Your task to perform on an android device: turn pop-ups on in chrome Image 0: 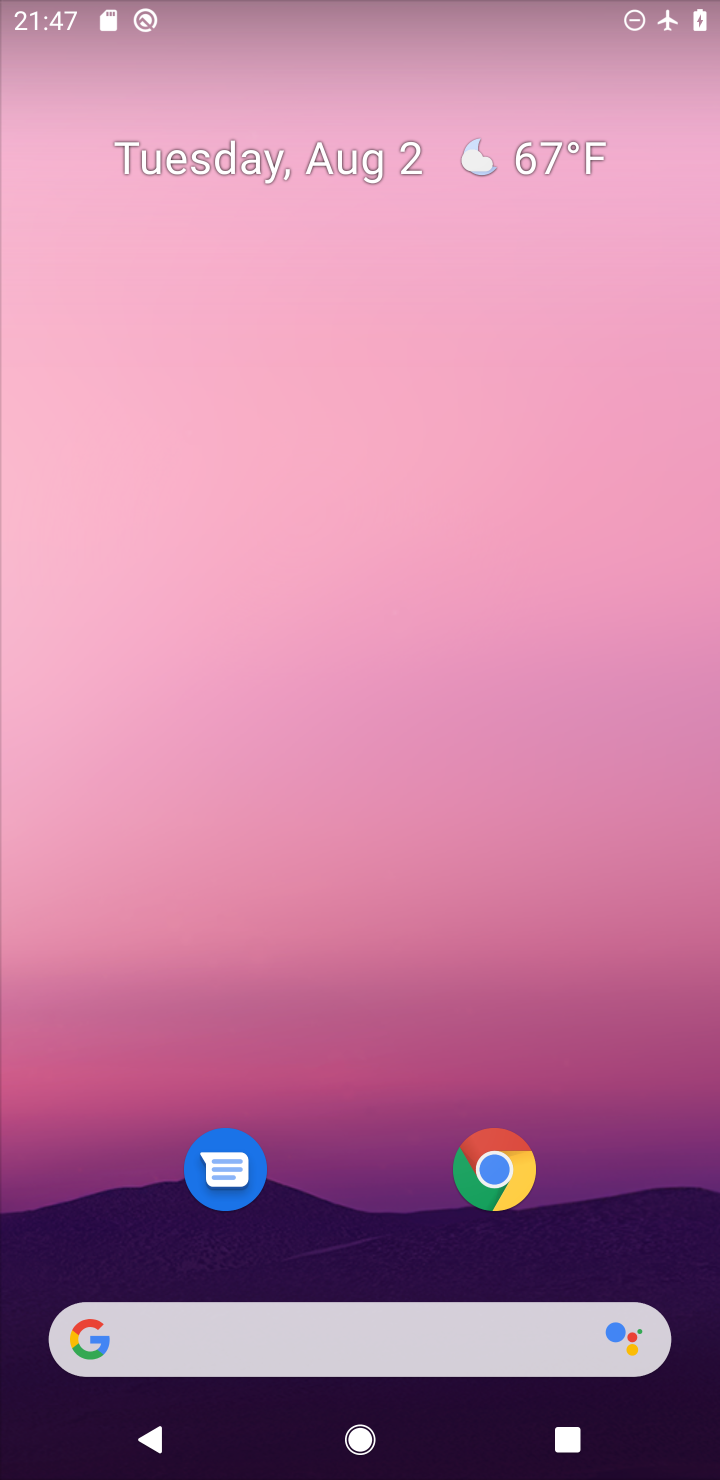
Step 0: click (509, 1170)
Your task to perform on an android device: turn pop-ups on in chrome Image 1: 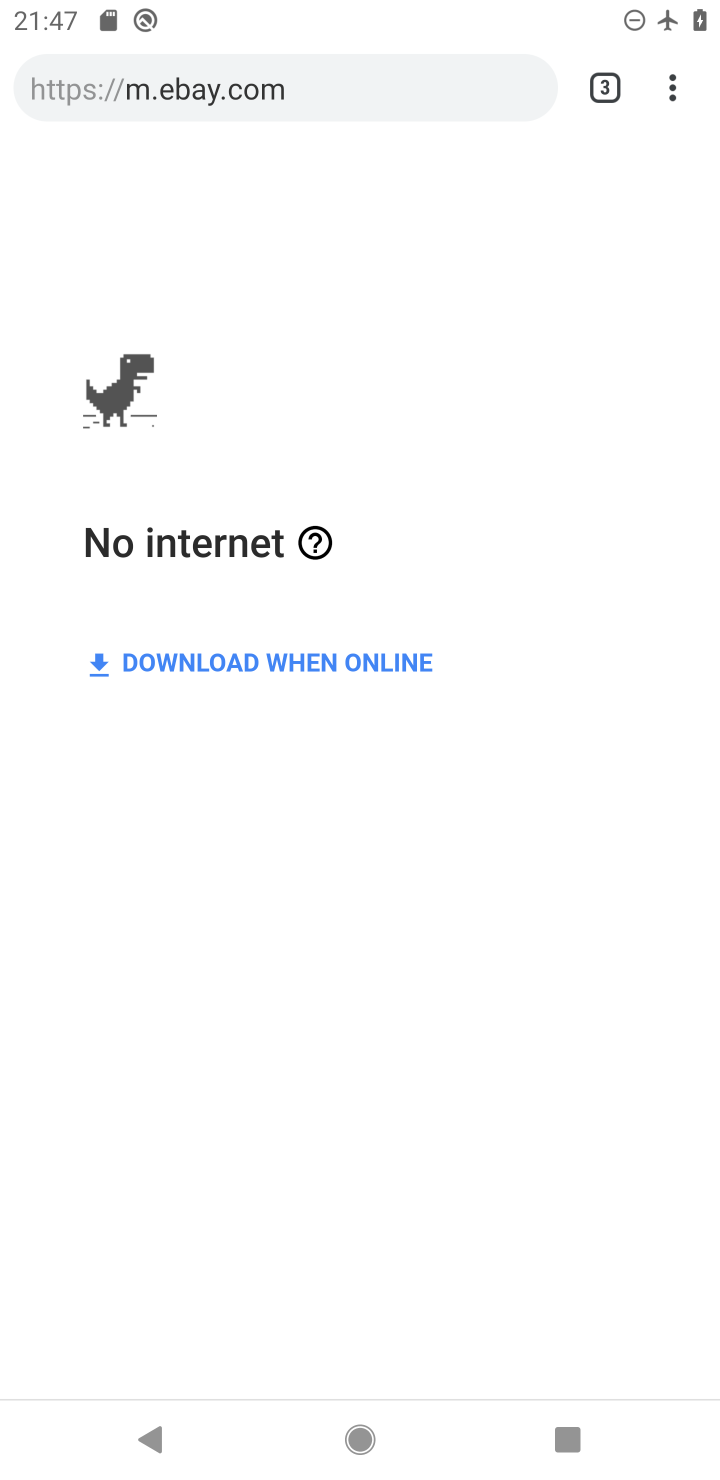
Step 1: click (673, 102)
Your task to perform on an android device: turn pop-ups on in chrome Image 2: 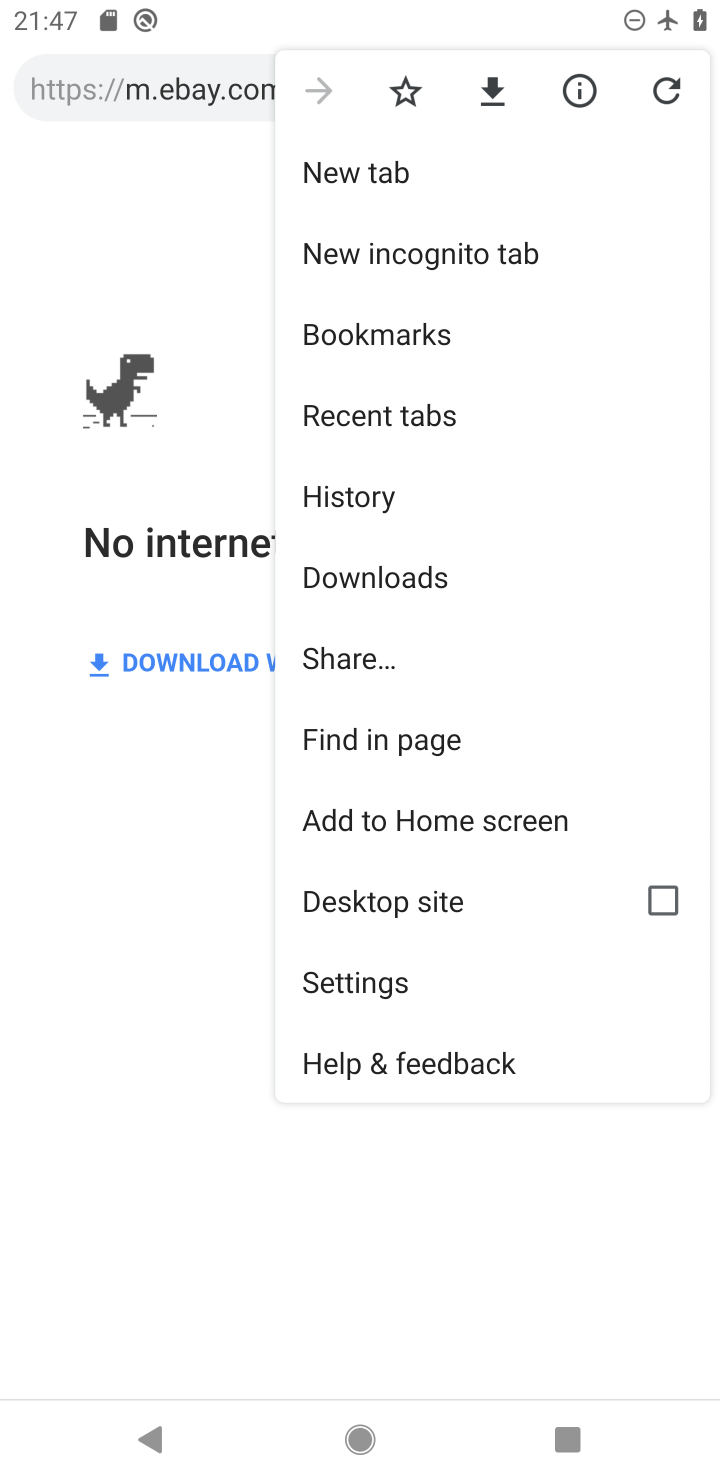
Step 2: click (359, 979)
Your task to perform on an android device: turn pop-ups on in chrome Image 3: 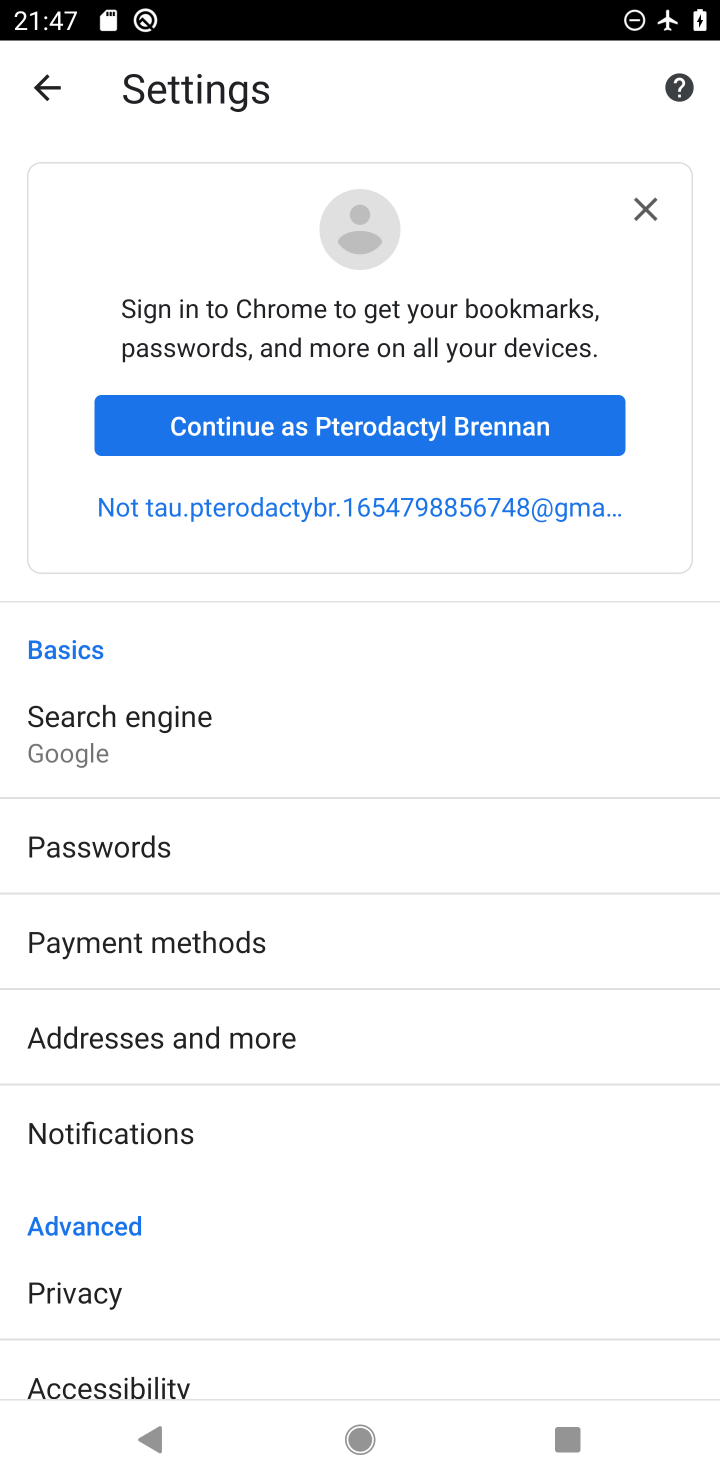
Step 3: drag from (208, 1341) to (263, 569)
Your task to perform on an android device: turn pop-ups on in chrome Image 4: 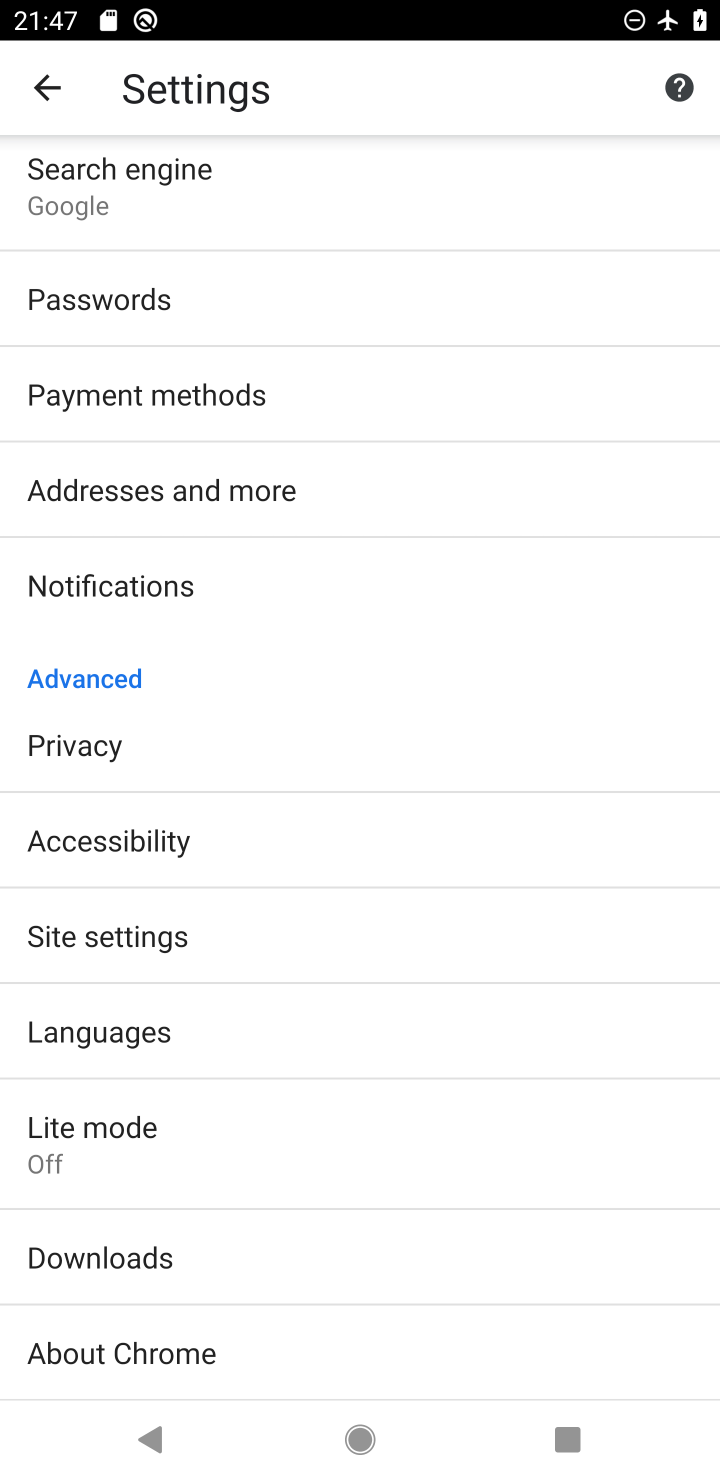
Step 4: click (112, 930)
Your task to perform on an android device: turn pop-ups on in chrome Image 5: 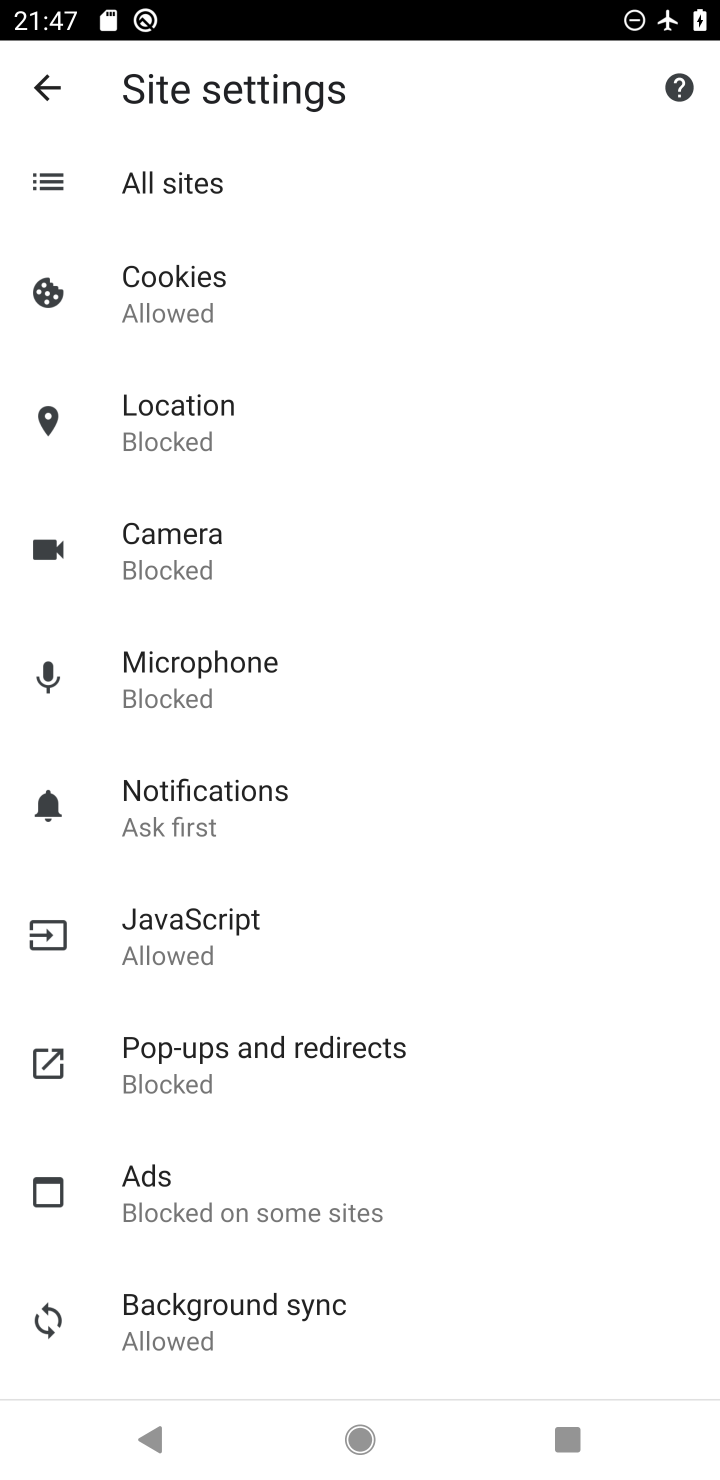
Step 5: click (216, 1059)
Your task to perform on an android device: turn pop-ups on in chrome Image 6: 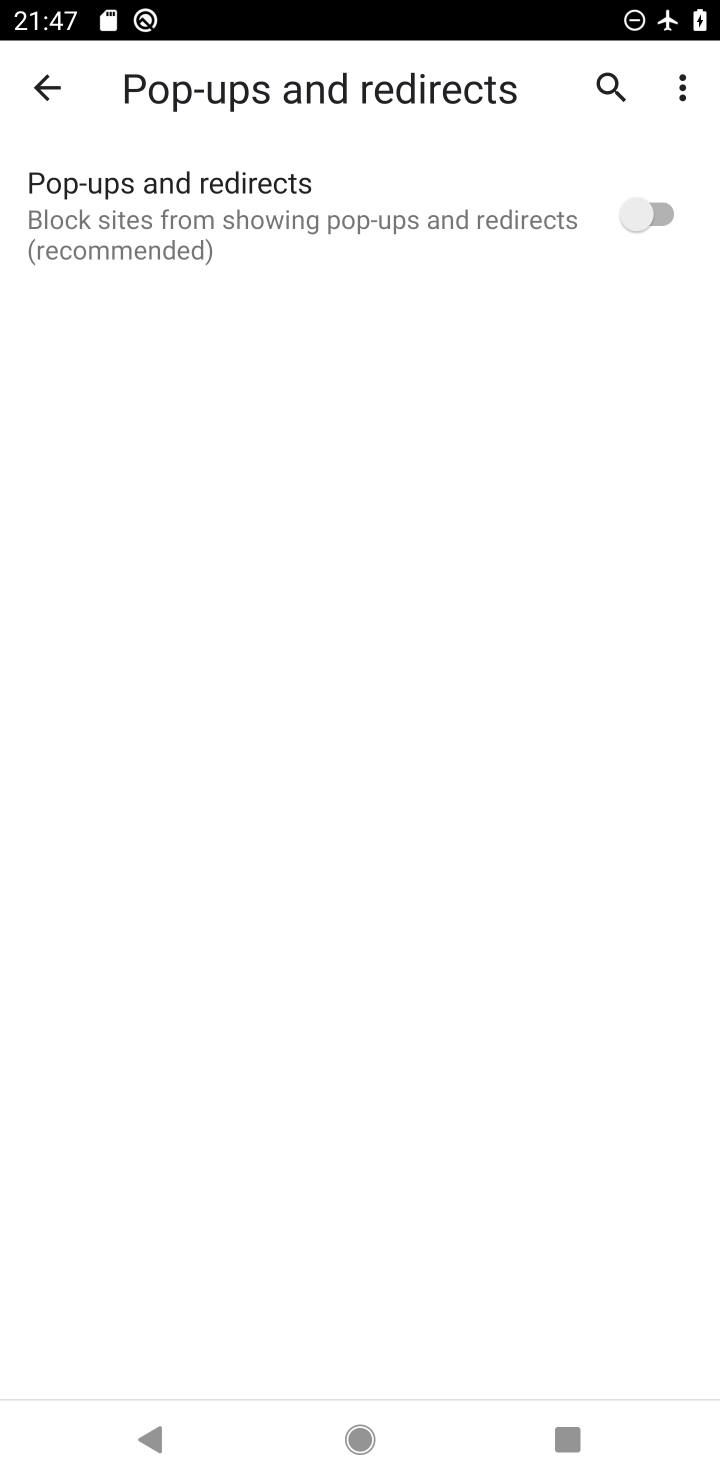
Step 6: click (661, 199)
Your task to perform on an android device: turn pop-ups on in chrome Image 7: 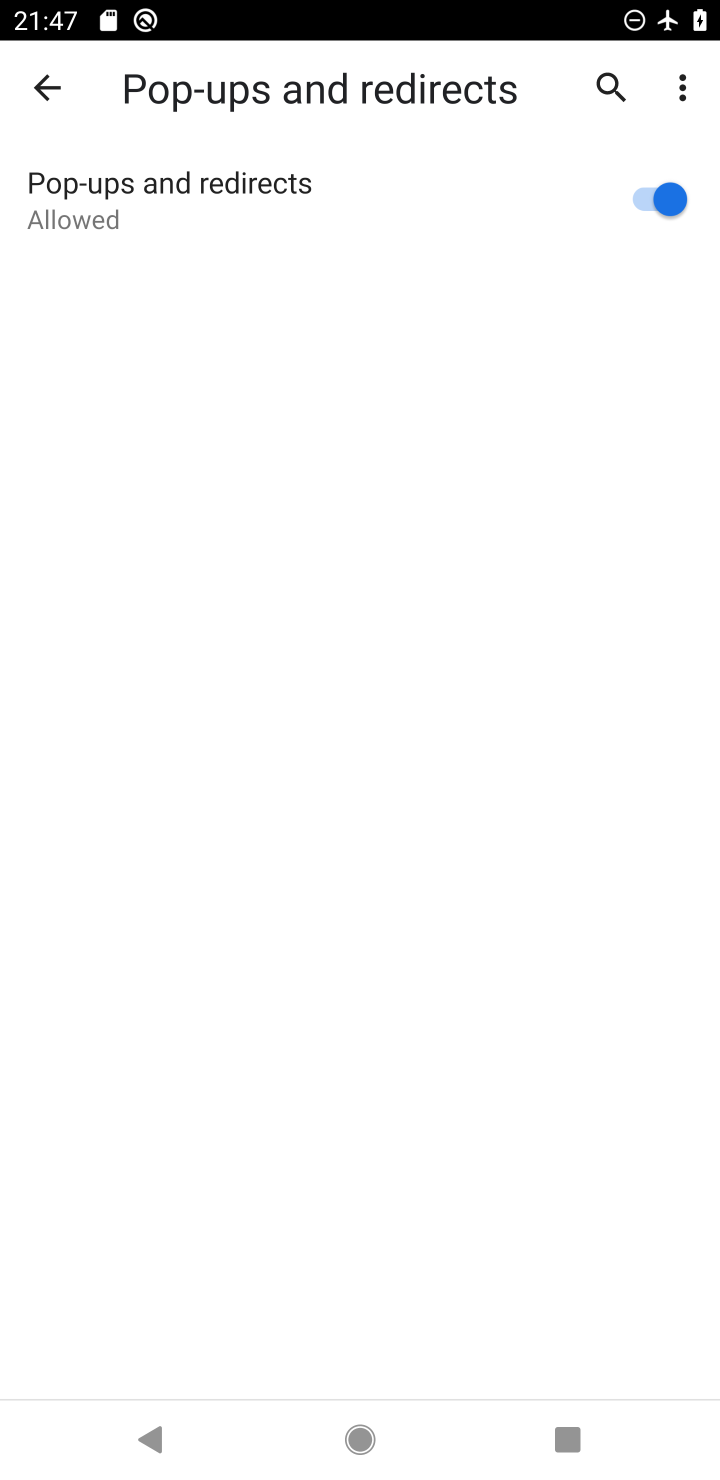
Step 7: task complete